Your task to perform on an android device: Go to privacy settings Image 0: 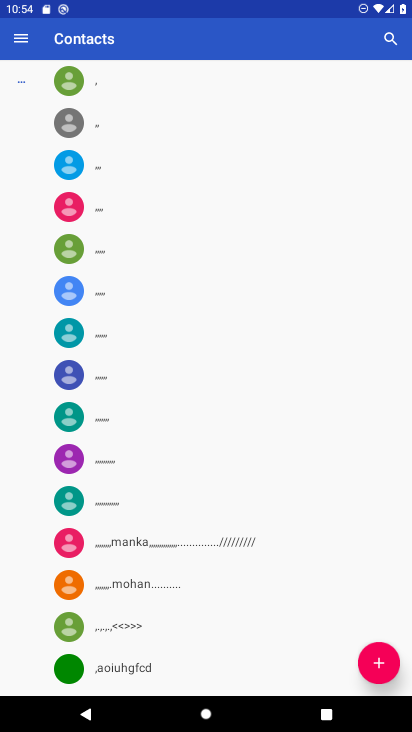
Step 0: press home button
Your task to perform on an android device: Go to privacy settings Image 1: 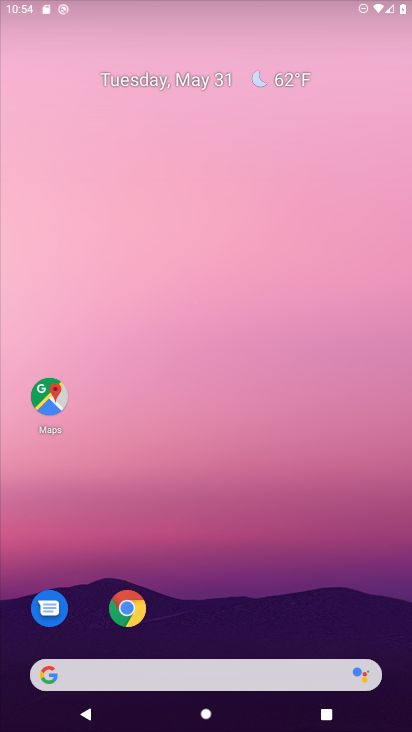
Step 1: drag from (321, 568) to (279, 160)
Your task to perform on an android device: Go to privacy settings Image 2: 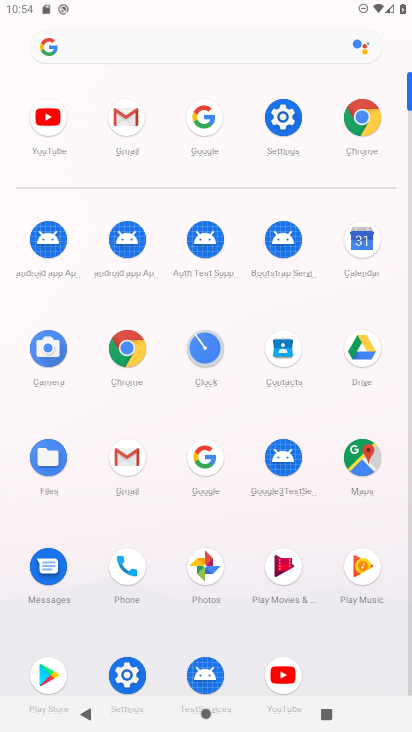
Step 2: click (125, 685)
Your task to perform on an android device: Go to privacy settings Image 3: 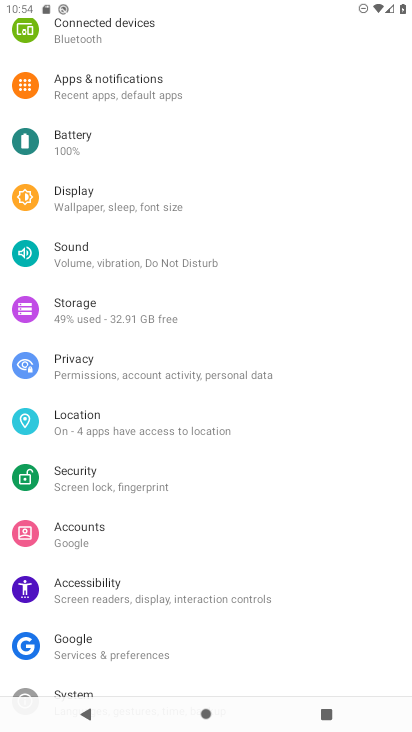
Step 3: click (160, 359)
Your task to perform on an android device: Go to privacy settings Image 4: 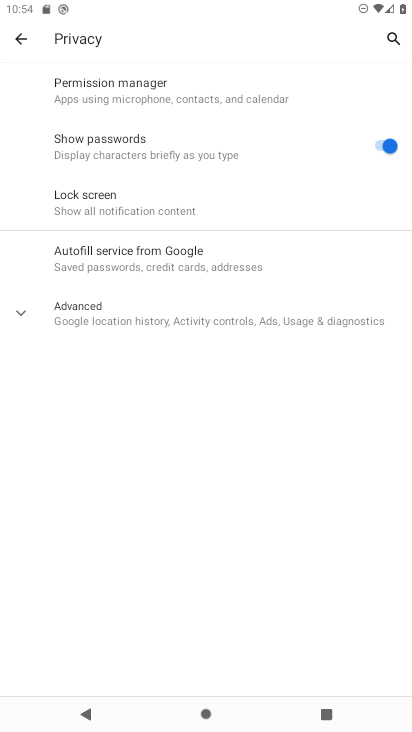
Step 4: task complete